Your task to perform on an android device: Empty the shopping cart on costco.com. Add alienware aurora to the cart on costco.com Image 0: 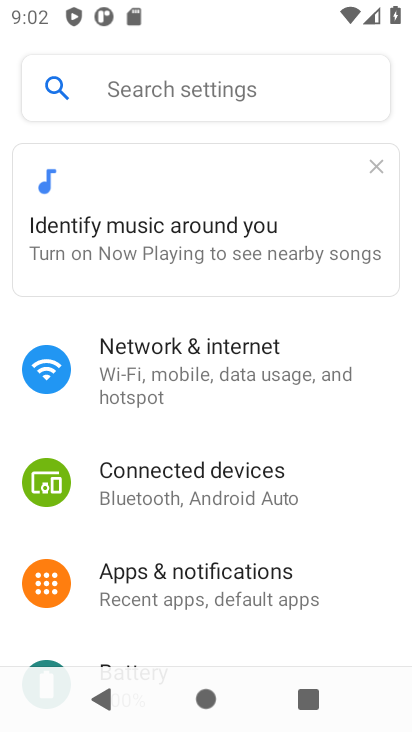
Step 0: press home button
Your task to perform on an android device: Empty the shopping cart on costco.com. Add alienware aurora to the cart on costco.com Image 1: 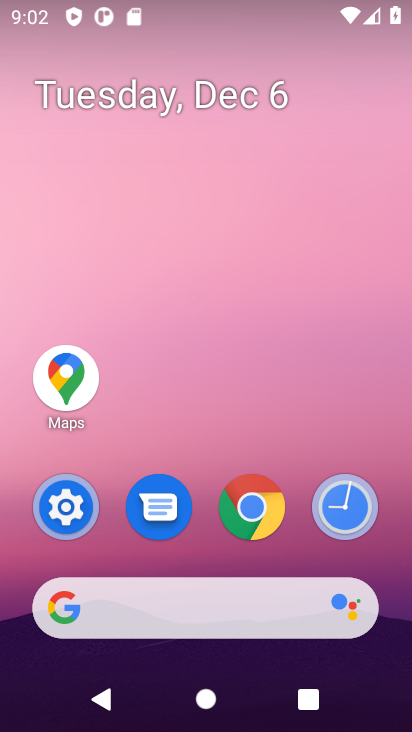
Step 1: click (129, 602)
Your task to perform on an android device: Empty the shopping cart on costco.com. Add alienware aurora to the cart on costco.com Image 2: 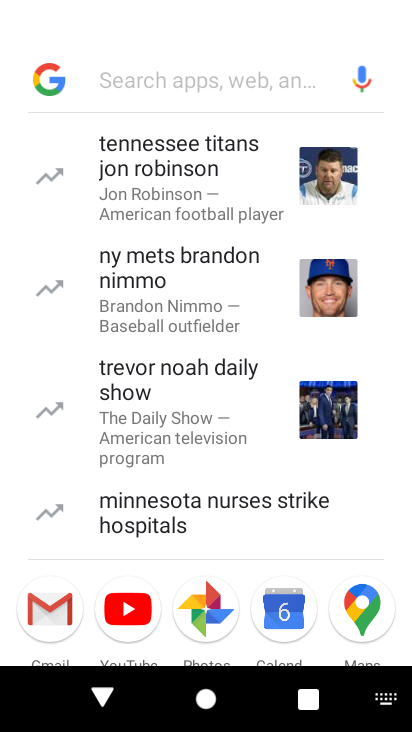
Step 2: press enter
Your task to perform on an android device: Empty the shopping cart on costco.com. Add alienware aurora to the cart on costco.com Image 3: 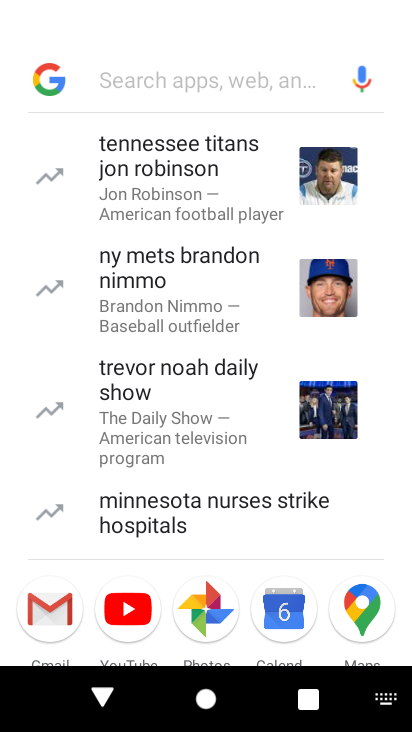
Step 3: type "costco.com"
Your task to perform on an android device: Empty the shopping cart on costco.com. Add alienware aurora to the cart on costco.com Image 4: 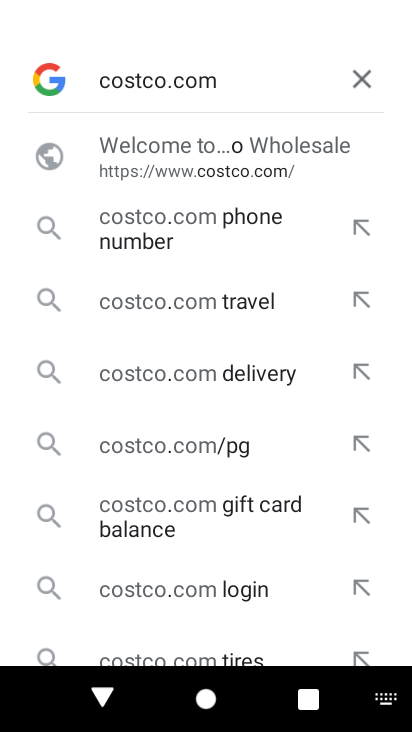
Step 4: press enter
Your task to perform on an android device: Empty the shopping cart on costco.com. Add alienware aurora to the cart on costco.com Image 5: 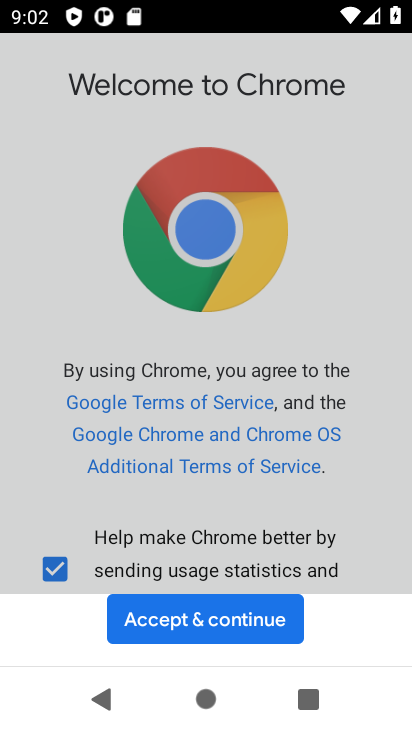
Step 5: click (253, 629)
Your task to perform on an android device: Empty the shopping cart on costco.com. Add alienware aurora to the cart on costco.com Image 6: 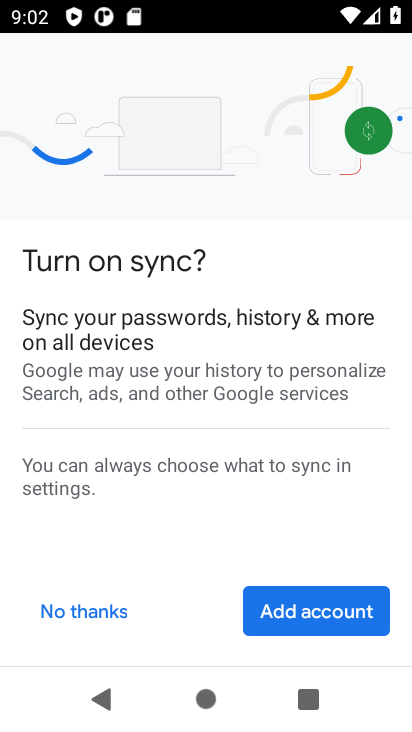
Step 6: click (84, 617)
Your task to perform on an android device: Empty the shopping cart on costco.com. Add alienware aurora to the cart on costco.com Image 7: 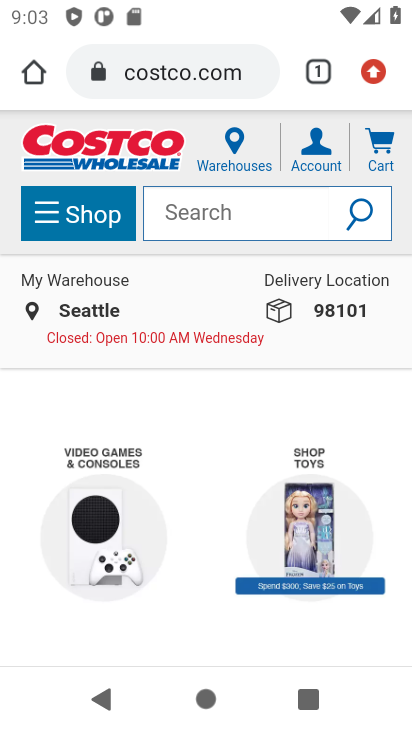
Step 7: click (382, 151)
Your task to perform on an android device: Empty the shopping cart on costco.com. Add alienware aurora to the cart on costco.com Image 8: 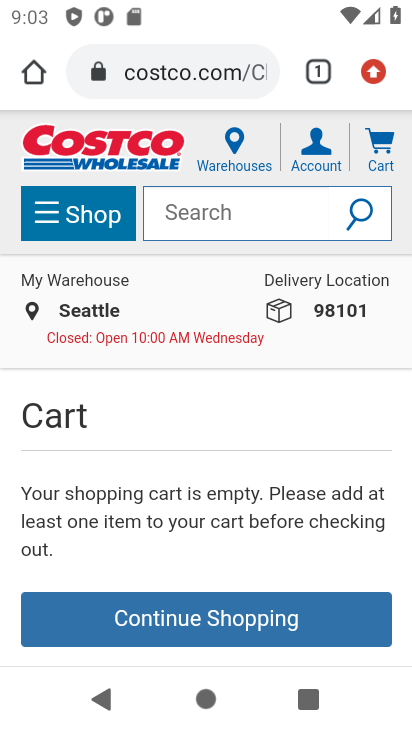
Step 8: click (225, 212)
Your task to perform on an android device: Empty the shopping cart on costco.com. Add alienware aurora to the cart on costco.com Image 9: 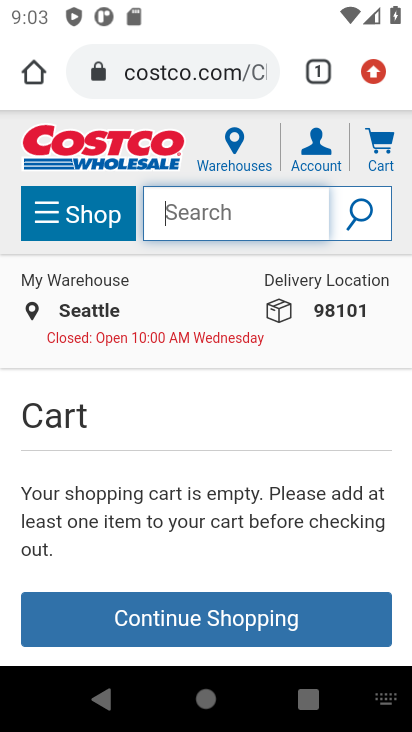
Step 9: type " alienware aurora"
Your task to perform on an android device: Empty the shopping cart on costco.com. Add alienware aurora to the cart on costco.com Image 10: 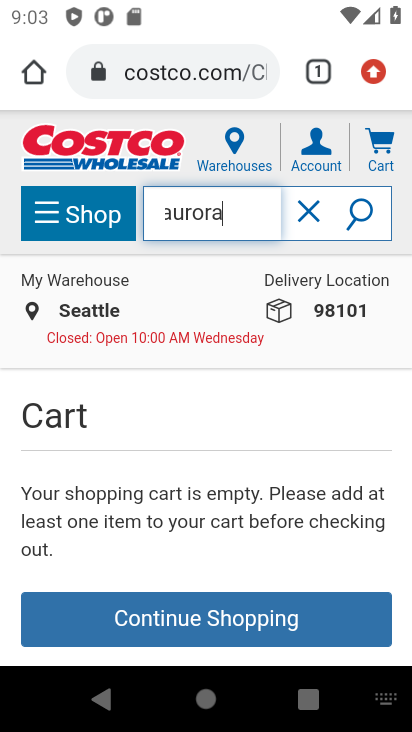
Step 10: press enter
Your task to perform on an android device: Empty the shopping cart on costco.com. Add alienware aurora to the cart on costco.com Image 11: 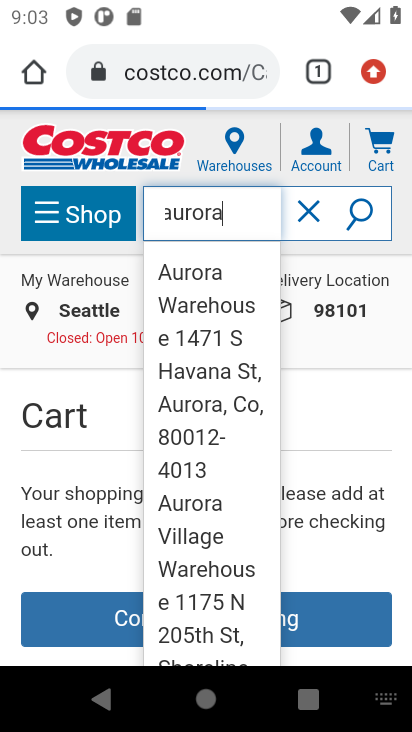
Step 11: press enter
Your task to perform on an android device: Empty the shopping cart on costco.com. Add alienware aurora to the cart on costco.com Image 12: 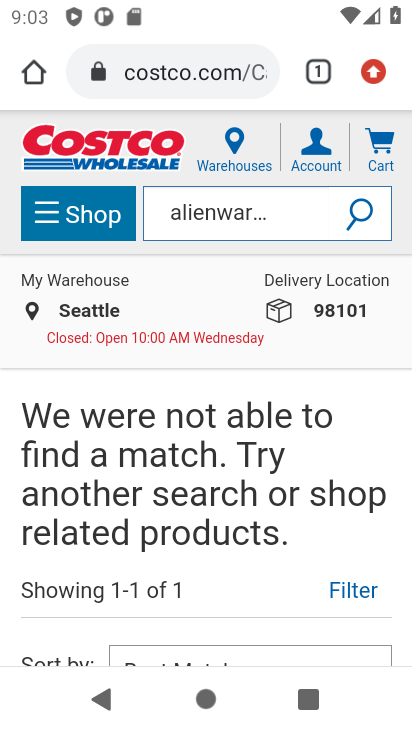
Step 12: task complete